Your task to perform on an android device: Do I have any events today? Image 0: 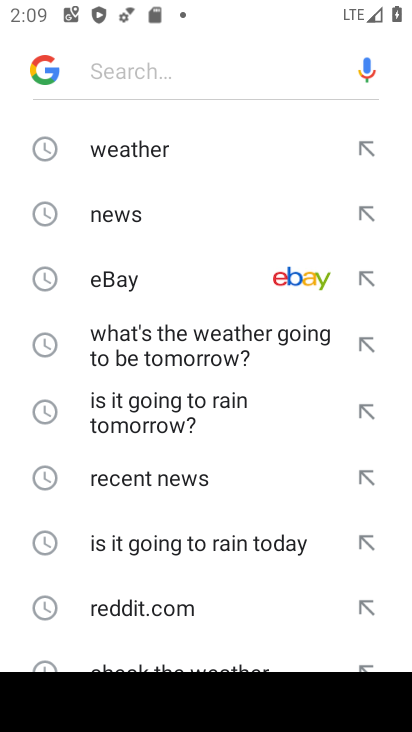
Step 0: press home button
Your task to perform on an android device: Do I have any events today? Image 1: 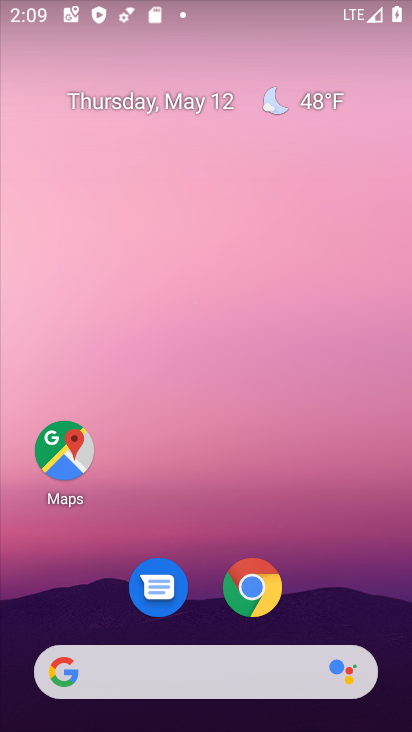
Step 1: drag from (251, 571) to (235, 104)
Your task to perform on an android device: Do I have any events today? Image 2: 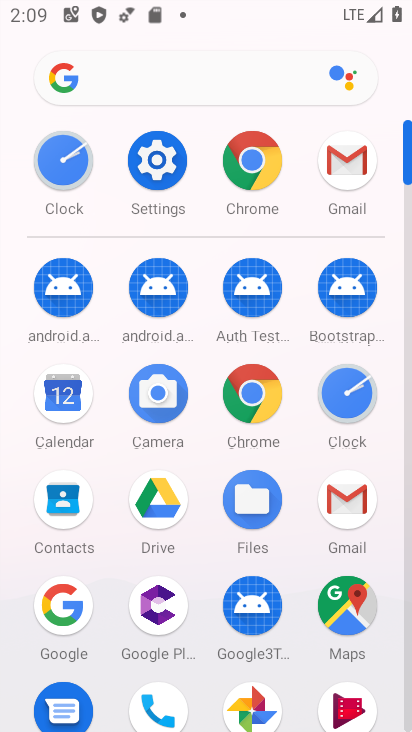
Step 2: click (61, 427)
Your task to perform on an android device: Do I have any events today? Image 3: 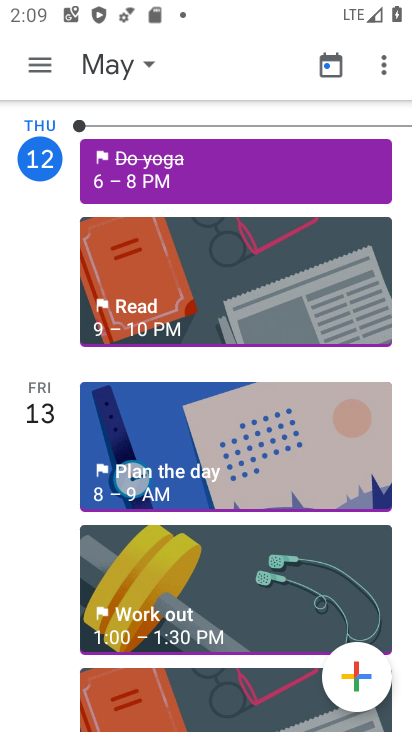
Step 3: task complete